Your task to perform on an android device: change your default location settings in chrome Image 0: 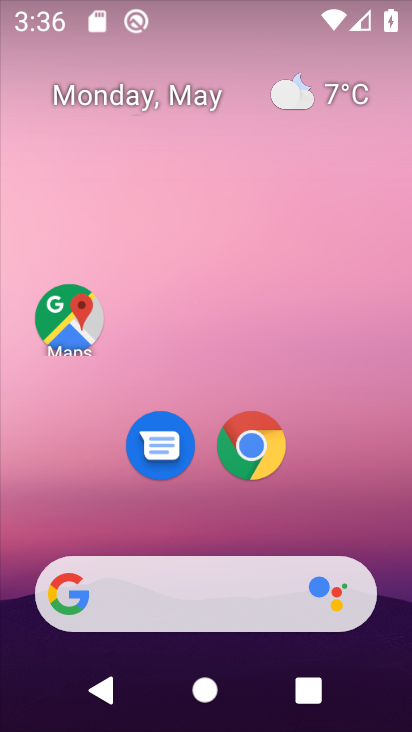
Step 0: drag from (343, 555) to (272, 27)
Your task to perform on an android device: change your default location settings in chrome Image 1: 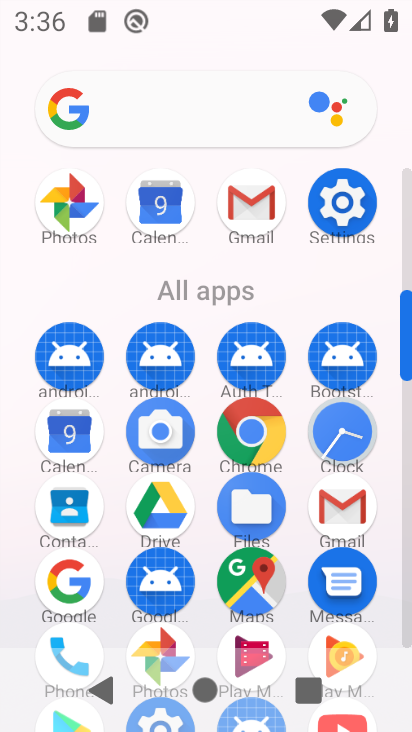
Step 1: click (273, 432)
Your task to perform on an android device: change your default location settings in chrome Image 2: 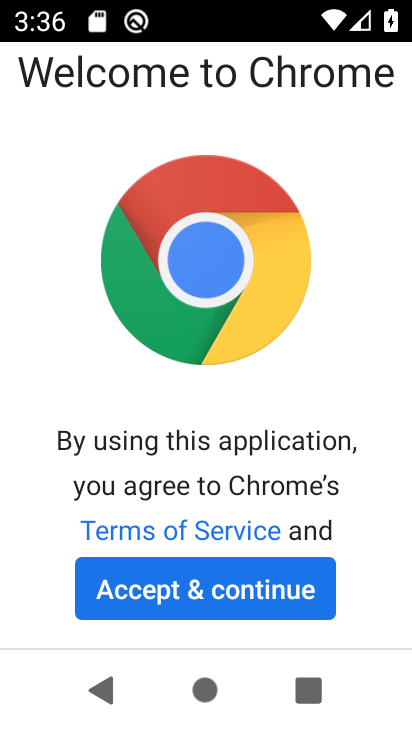
Step 2: click (261, 584)
Your task to perform on an android device: change your default location settings in chrome Image 3: 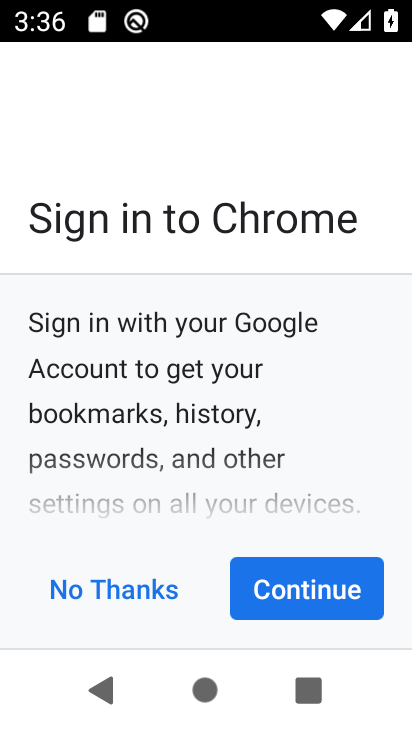
Step 3: click (291, 600)
Your task to perform on an android device: change your default location settings in chrome Image 4: 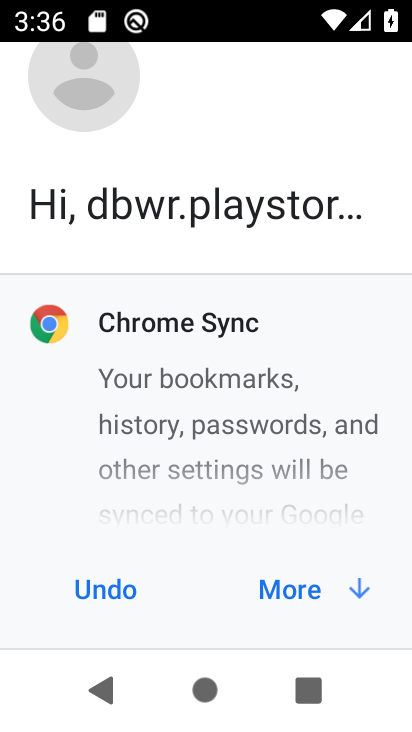
Step 4: click (291, 600)
Your task to perform on an android device: change your default location settings in chrome Image 5: 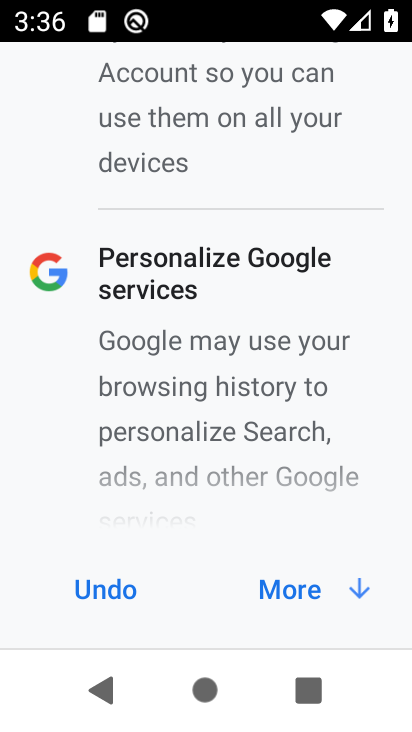
Step 5: click (291, 600)
Your task to perform on an android device: change your default location settings in chrome Image 6: 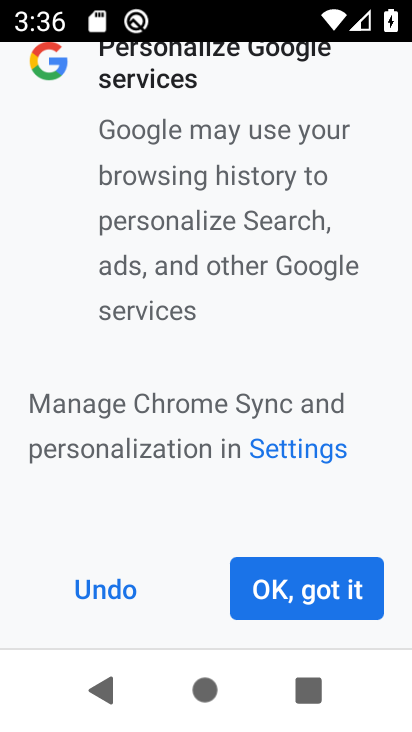
Step 6: click (291, 600)
Your task to perform on an android device: change your default location settings in chrome Image 7: 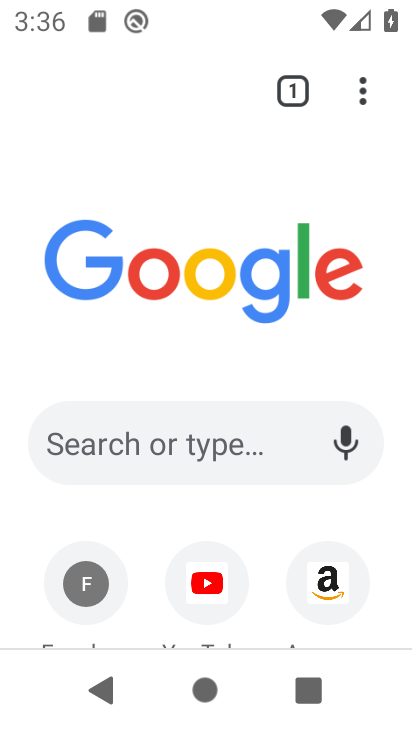
Step 7: drag from (243, 521) to (229, 271)
Your task to perform on an android device: change your default location settings in chrome Image 8: 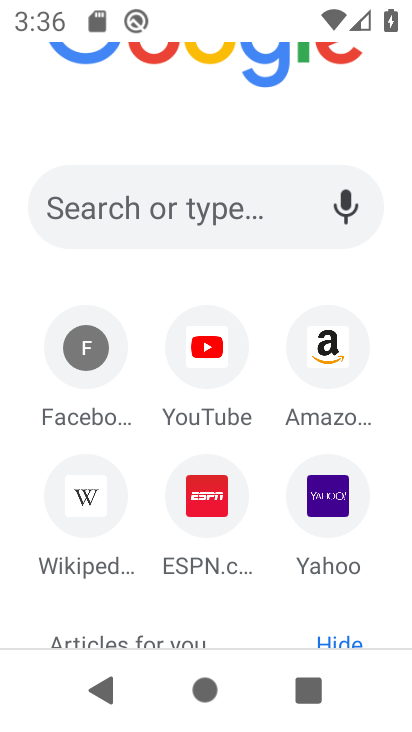
Step 8: click (267, 520)
Your task to perform on an android device: change your default location settings in chrome Image 9: 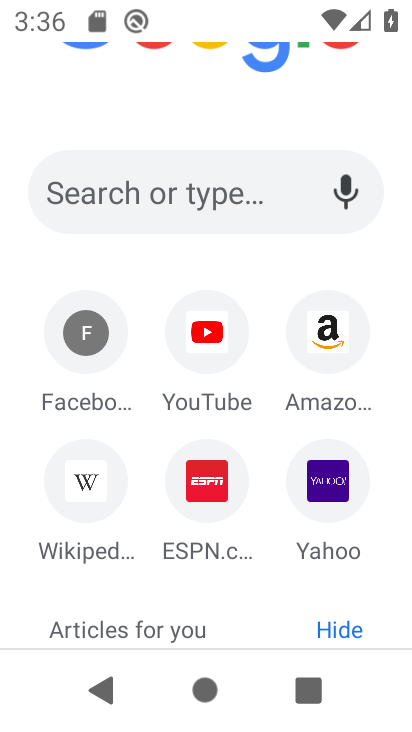
Step 9: drag from (325, 86) to (309, 384)
Your task to perform on an android device: change your default location settings in chrome Image 10: 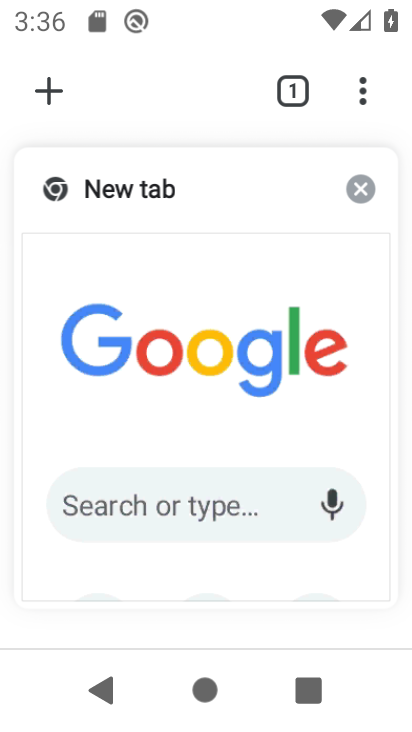
Step 10: click (375, 92)
Your task to perform on an android device: change your default location settings in chrome Image 11: 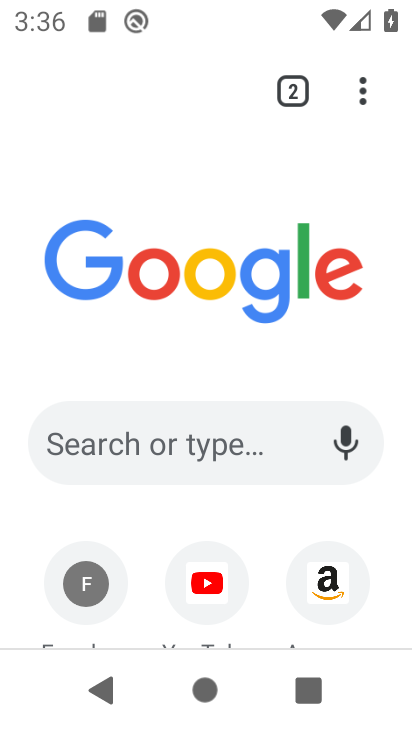
Step 11: click (361, 87)
Your task to perform on an android device: change your default location settings in chrome Image 12: 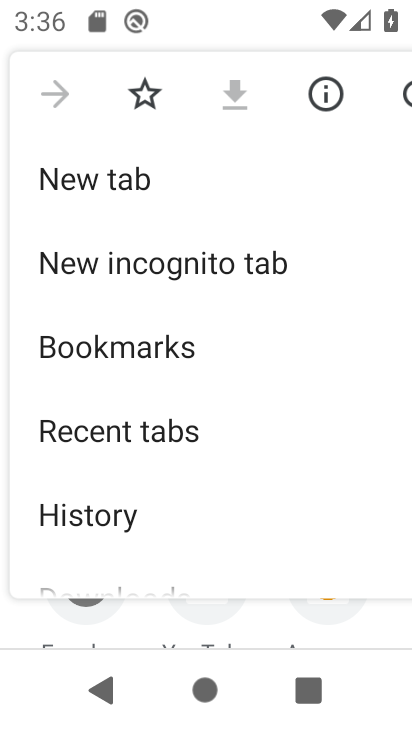
Step 12: drag from (162, 495) to (144, 132)
Your task to perform on an android device: change your default location settings in chrome Image 13: 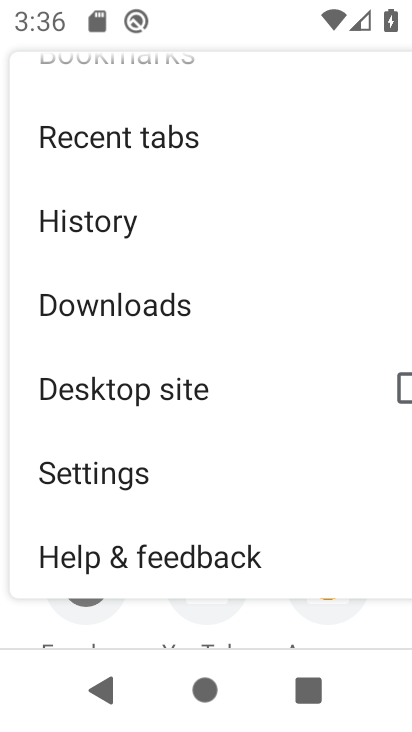
Step 13: click (147, 464)
Your task to perform on an android device: change your default location settings in chrome Image 14: 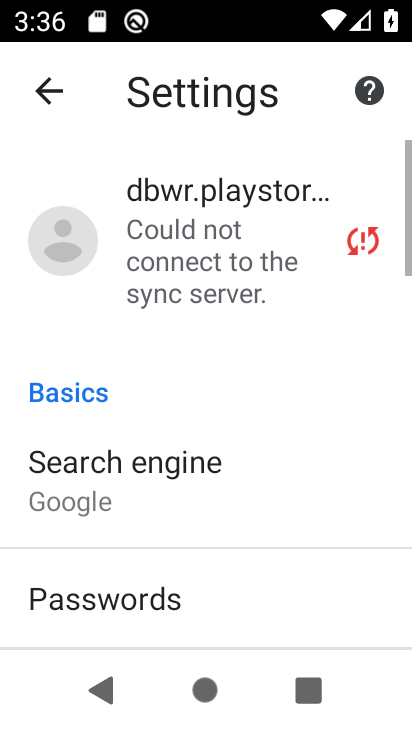
Step 14: drag from (186, 564) to (190, 48)
Your task to perform on an android device: change your default location settings in chrome Image 15: 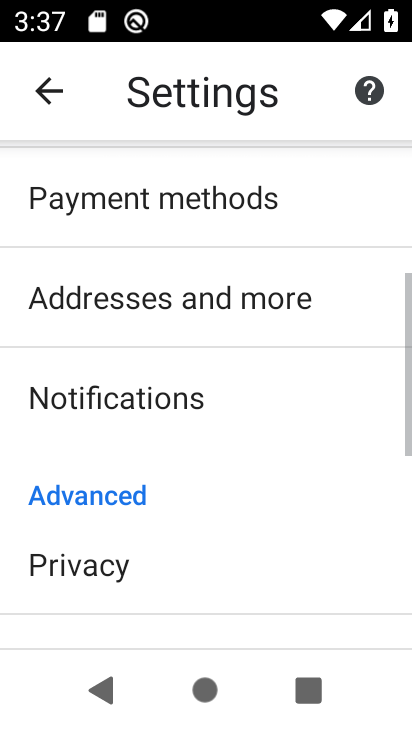
Step 15: drag from (180, 539) to (179, 164)
Your task to perform on an android device: change your default location settings in chrome Image 16: 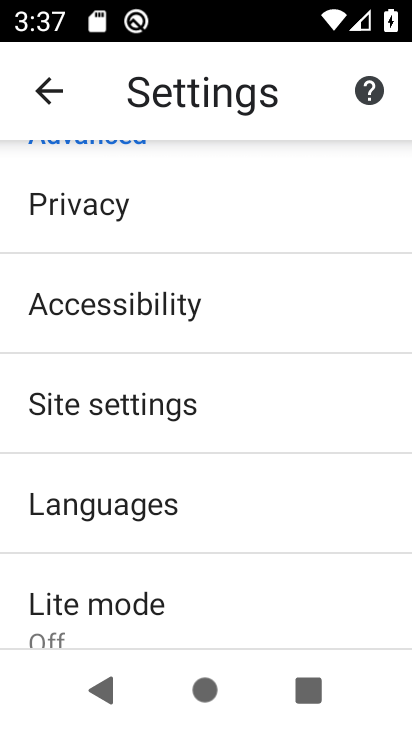
Step 16: drag from (177, 514) to (183, 400)
Your task to perform on an android device: change your default location settings in chrome Image 17: 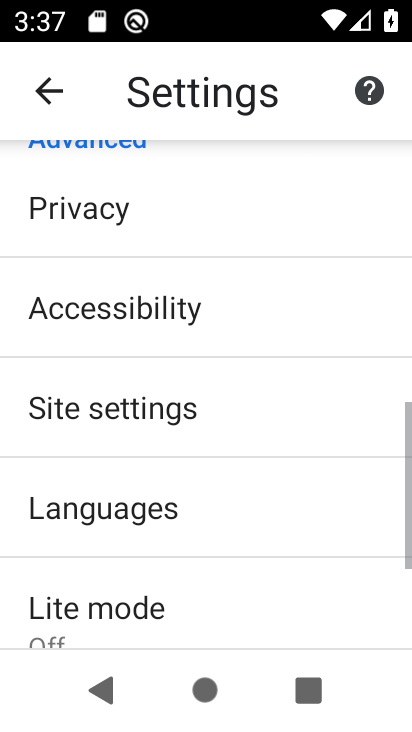
Step 17: click (182, 416)
Your task to perform on an android device: change your default location settings in chrome Image 18: 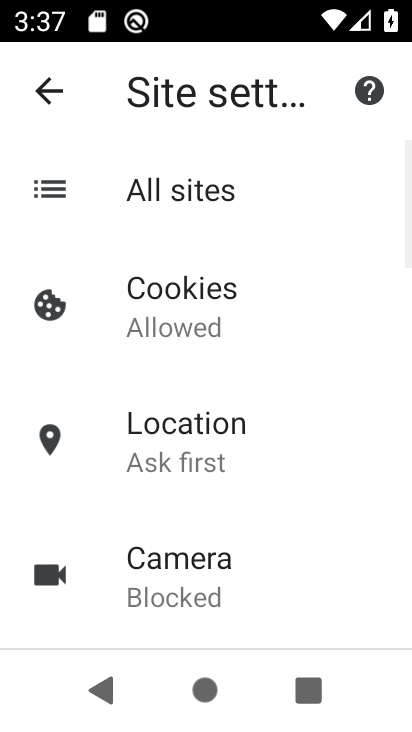
Step 18: click (200, 459)
Your task to perform on an android device: change your default location settings in chrome Image 19: 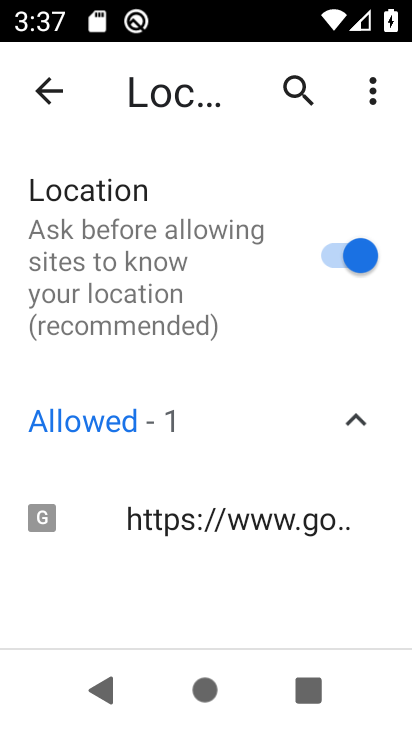
Step 19: click (334, 249)
Your task to perform on an android device: change your default location settings in chrome Image 20: 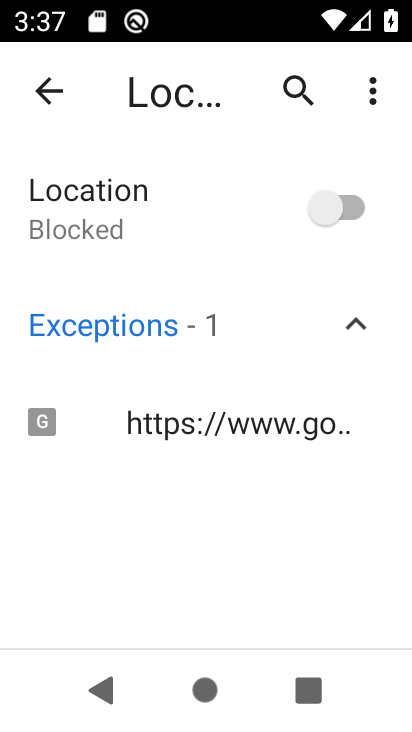
Step 20: task complete